Your task to perform on an android device: install app "Chime – Mobile Banking" Image 0: 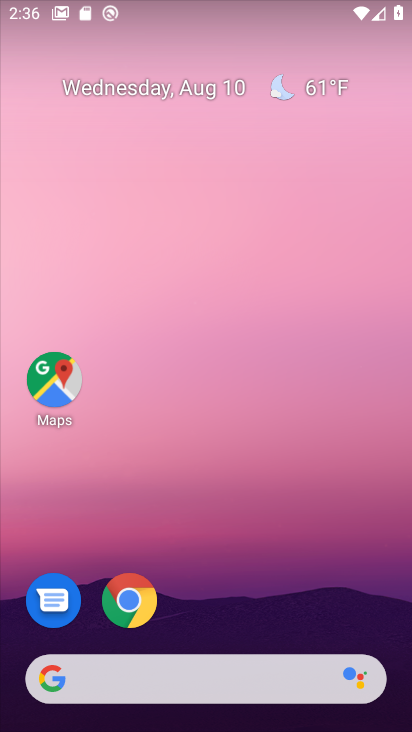
Step 0: drag from (236, 591) to (306, 64)
Your task to perform on an android device: install app "Chime – Mobile Banking" Image 1: 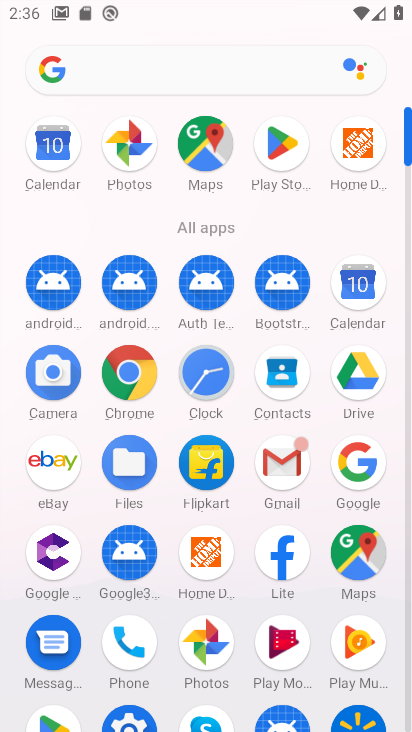
Step 1: click (290, 128)
Your task to perform on an android device: install app "Chime – Mobile Banking" Image 2: 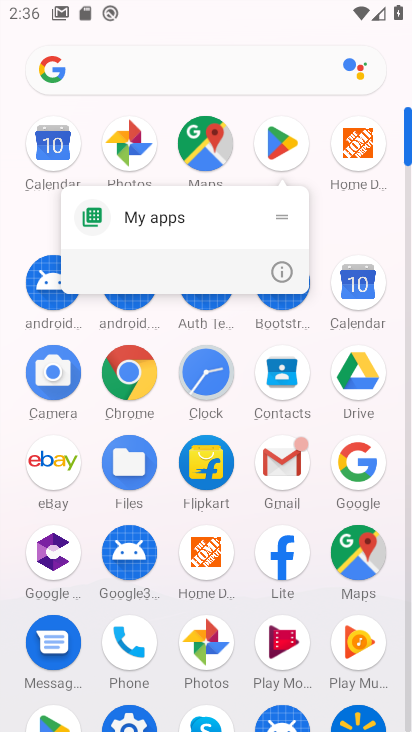
Step 2: click (266, 146)
Your task to perform on an android device: install app "Chime – Mobile Banking" Image 3: 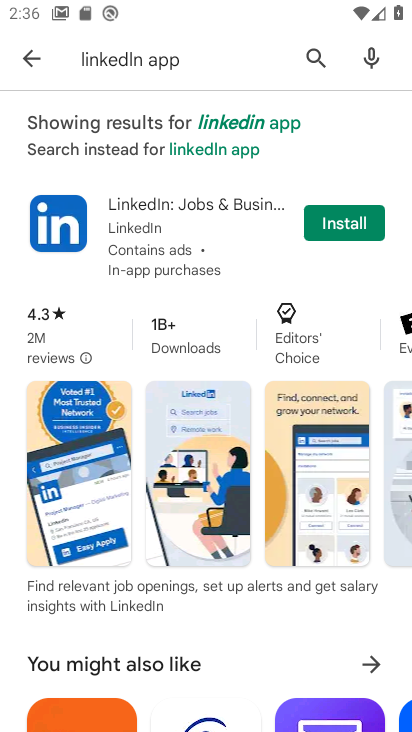
Step 3: click (306, 43)
Your task to perform on an android device: install app "Chime – Mobile Banking" Image 4: 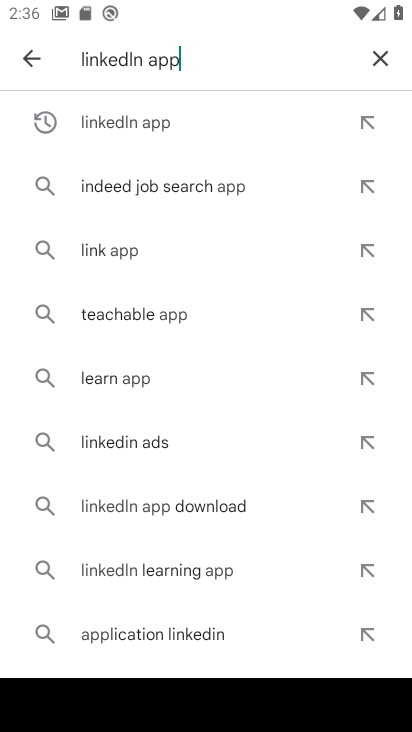
Step 4: click (376, 51)
Your task to perform on an android device: install app "Chime – Mobile Banking" Image 5: 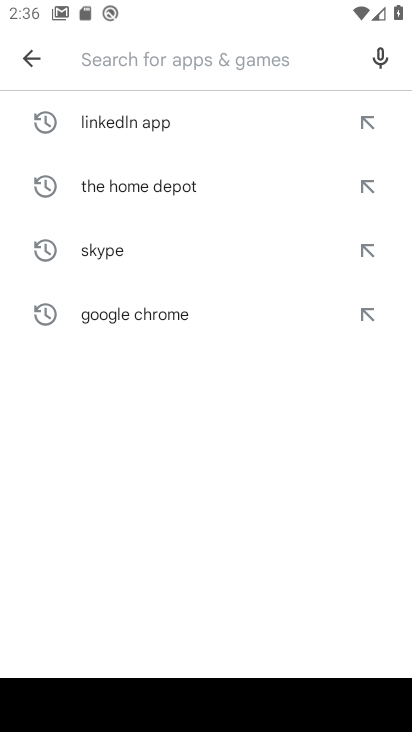
Step 5: click (194, 65)
Your task to perform on an android device: install app "Chime – Mobile Banking" Image 6: 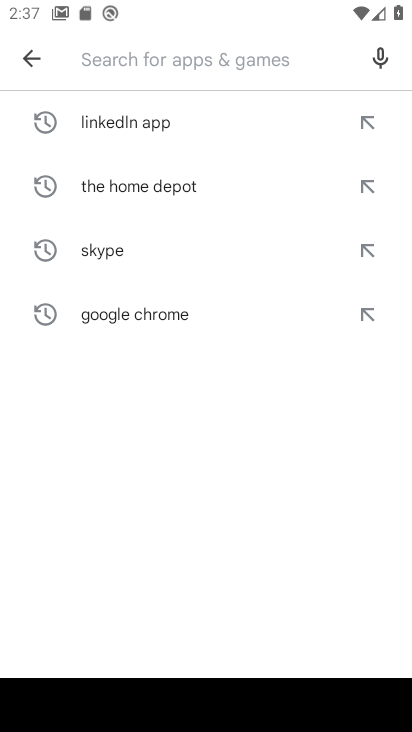
Step 6: type "chime"
Your task to perform on an android device: install app "Chime – Mobile Banking" Image 7: 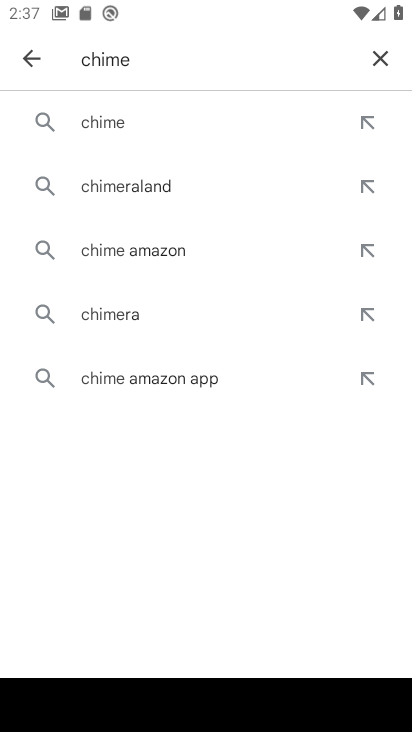
Step 7: click (148, 120)
Your task to perform on an android device: install app "Chime – Mobile Banking" Image 8: 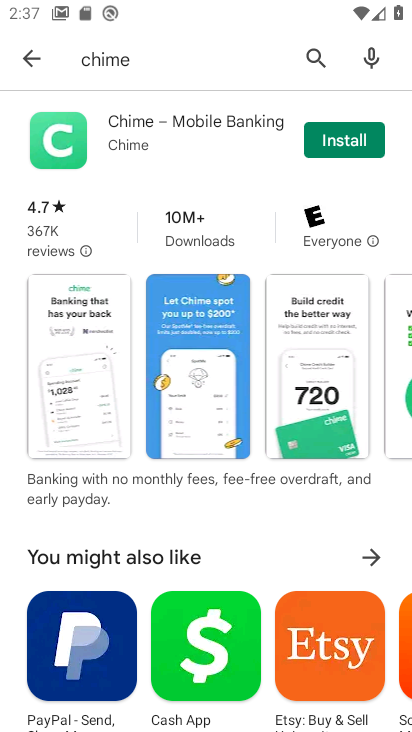
Step 8: click (352, 144)
Your task to perform on an android device: install app "Chime – Mobile Banking" Image 9: 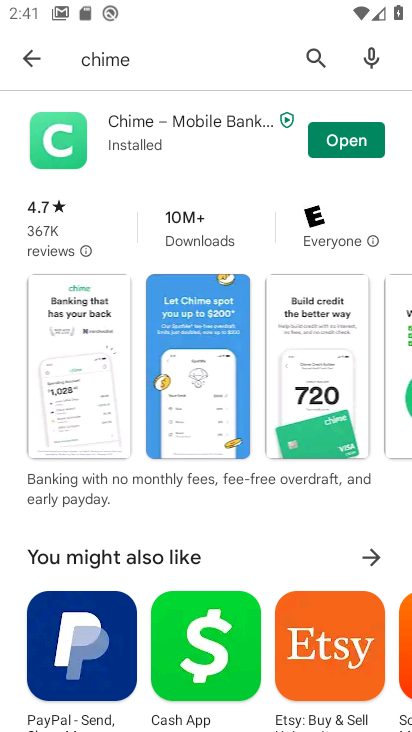
Step 9: click (334, 132)
Your task to perform on an android device: install app "Chime – Mobile Banking" Image 10: 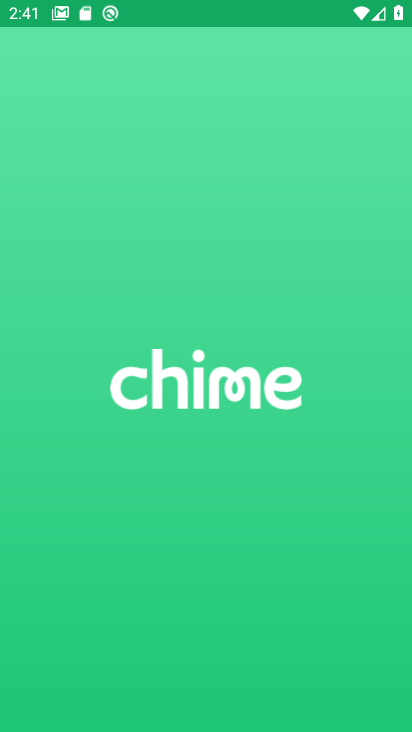
Step 10: task complete